Your task to perform on an android device: Search for seafood restaurants on Google Maps Image 0: 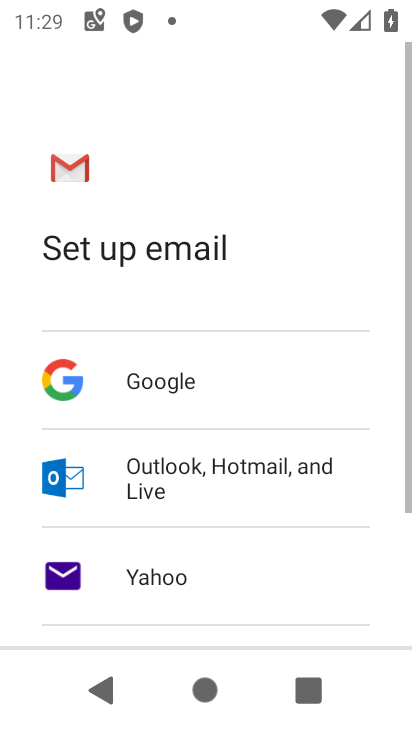
Step 0: drag from (180, 539) to (239, 110)
Your task to perform on an android device: Search for seafood restaurants on Google Maps Image 1: 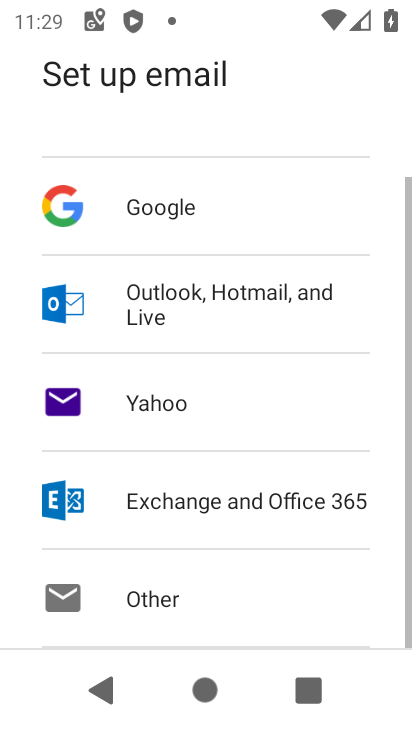
Step 1: press home button
Your task to perform on an android device: Search for seafood restaurants on Google Maps Image 2: 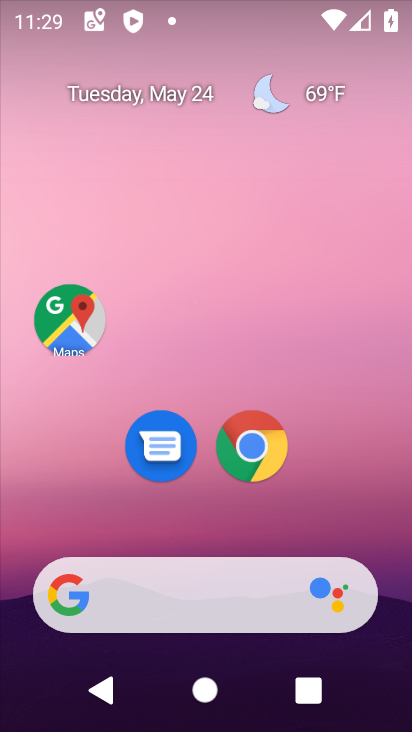
Step 2: click (76, 334)
Your task to perform on an android device: Search for seafood restaurants on Google Maps Image 3: 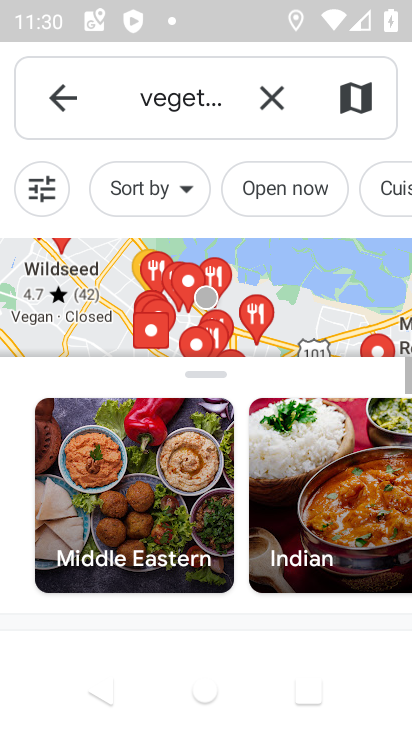
Step 3: click (268, 101)
Your task to perform on an android device: Search for seafood restaurants on Google Maps Image 4: 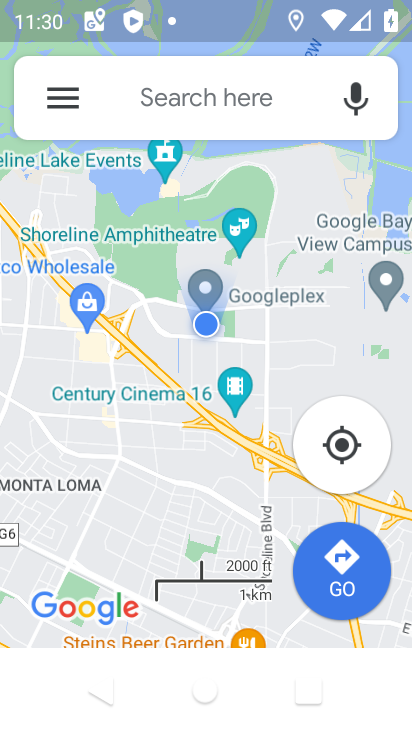
Step 4: click (184, 98)
Your task to perform on an android device: Search for seafood restaurants on Google Maps Image 5: 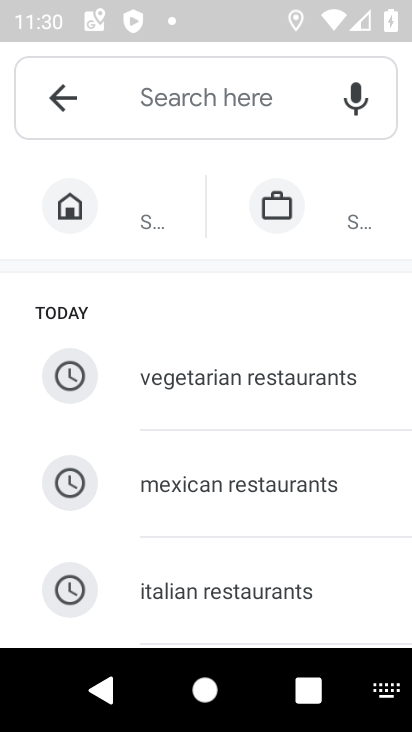
Step 5: drag from (186, 599) to (187, 262)
Your task to perform on an android device: Search for seafood restaurants on Google Maps Image 6: 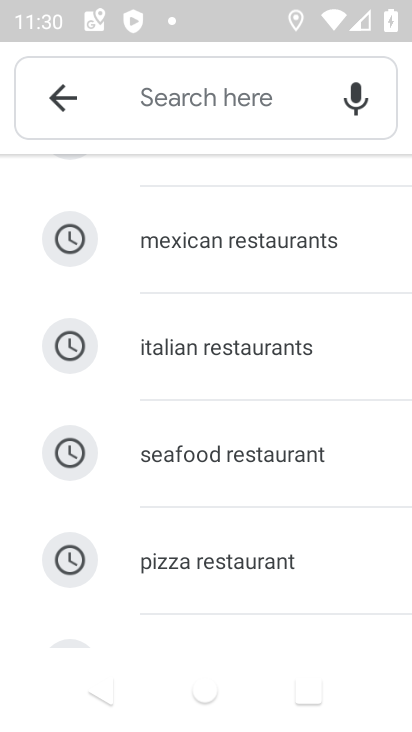
Step 6: click (205, 453)
Your task to perform on an android device: Search for seafood restaurants on Google Maps Image 7: 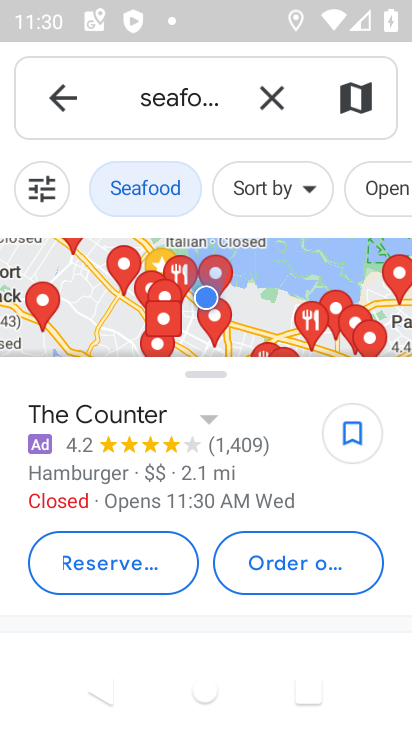
Step 7: task complete